Your task to perform on an android device: stop showing notifications on the lock screen Image 0: 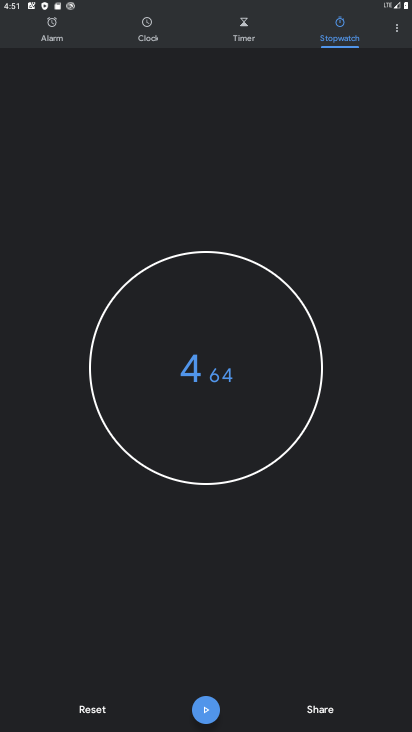
Step 0: press home button
Your task to perform on an android device: stop showing notifications on the lock screen Image 1: 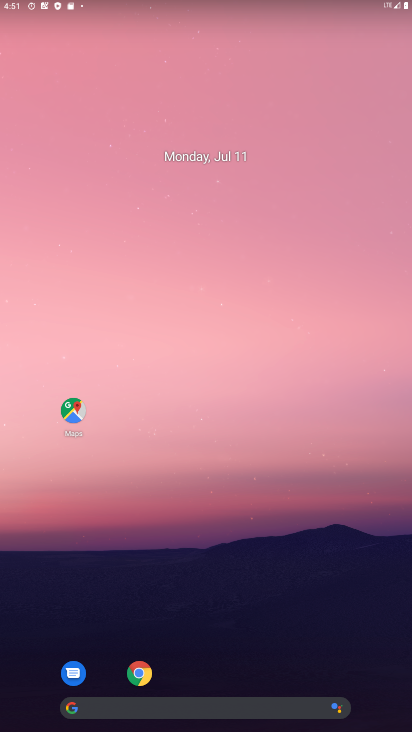
Step 1: drag from (208, 703) to (224, 207)
Your task to perform on an android device: stop showing notifications on the lock screen Image 2: 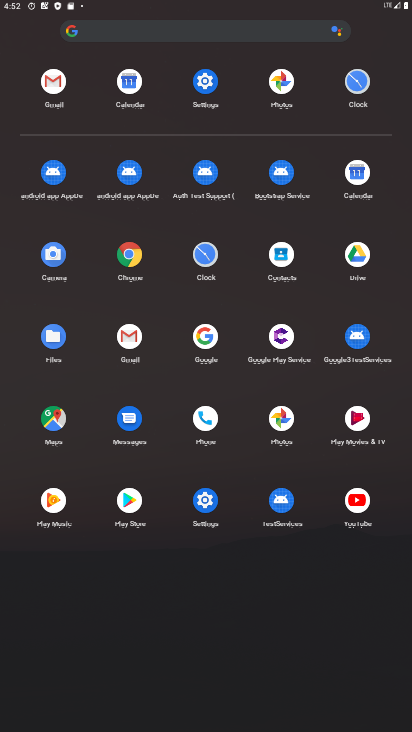
Step 2: click (205, 83)
Your task to perform on an android device: stop showing notifications on the lock screen Image 3: 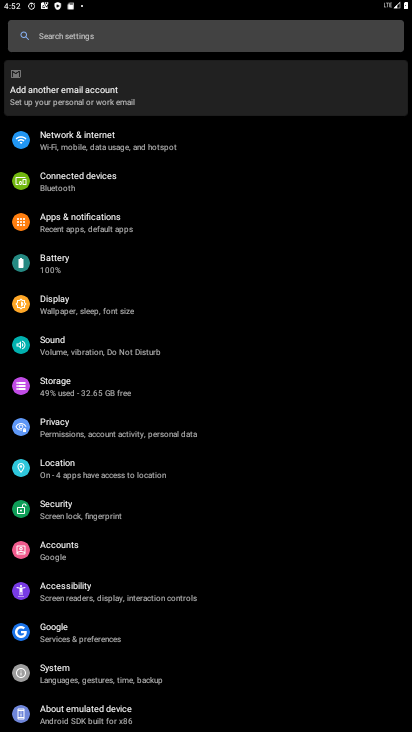
Step 3: click (87, 217)
Your task to perform on an android device: stop showing notifications on the lock screen Image 4: 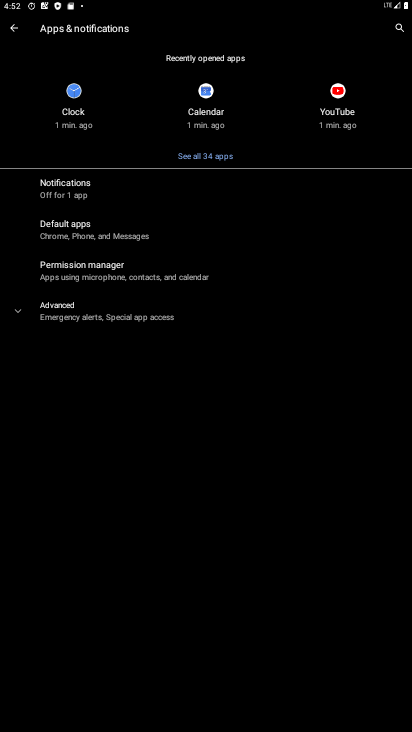
Step 4: click (73, 194)
Your task to perform on an android device: stop showing notifications on the lock screen Image 5: 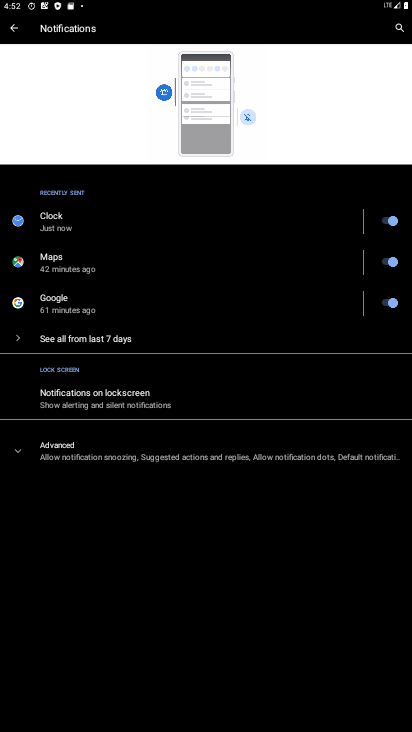
Step 5: click (149, 400)
Your task to perform on an android device: stop showing notifications on the lock screen Image 6: 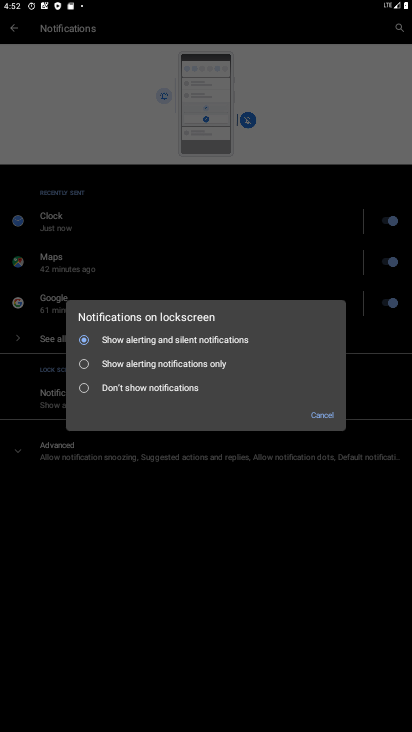
Step 6: click (79, 385)
Your task to perform on an android device: stop showing notifications on the lock screen Image 7: 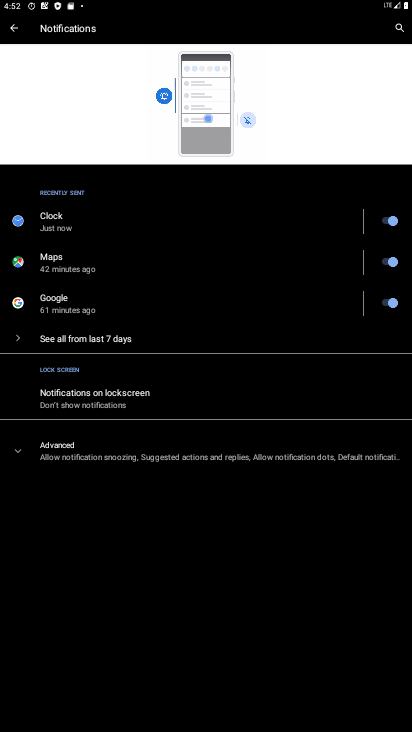
Step 7: task complete